Your task to perform on an android device: move a message to another label in the gmail app Image 0: 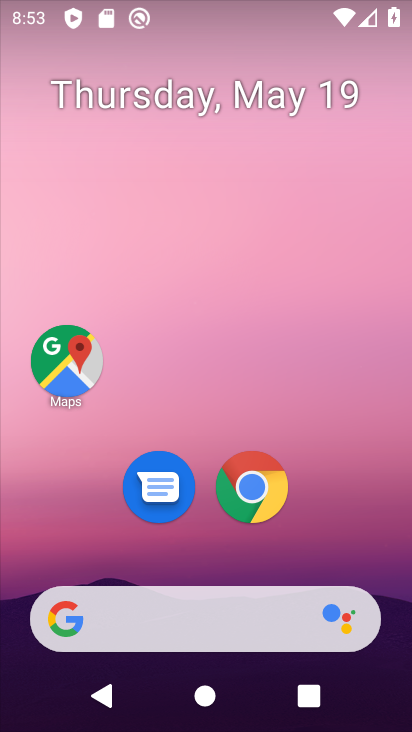
Step 0: drag from (216, 457) to (264, 40)
Your task to perform on an android device: move a message to another label in the gmail app Image 1: 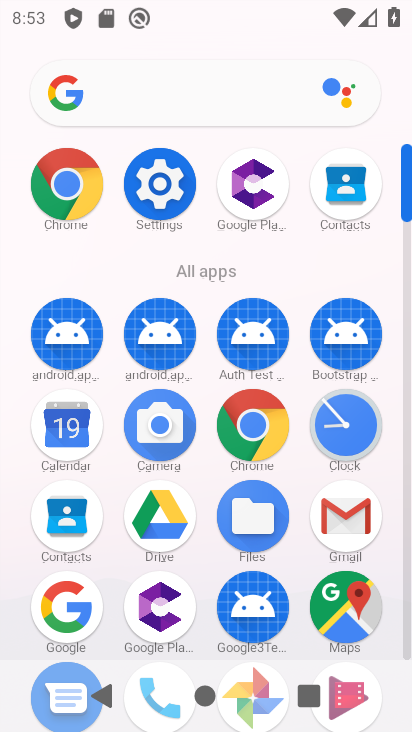
Step 1: click (339, 526)
Your task to perform on an android device: move a message to another label in the gmail app Image 2: 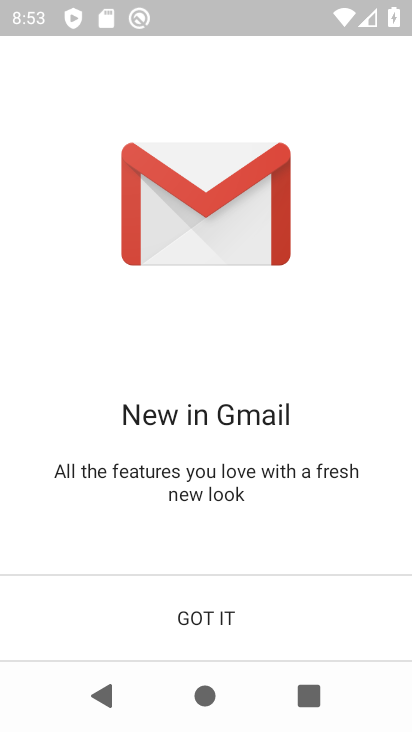
Step 2: click (184, 642)
Your task to perform on an android device: move a message to another label in the gmail app Image 3: 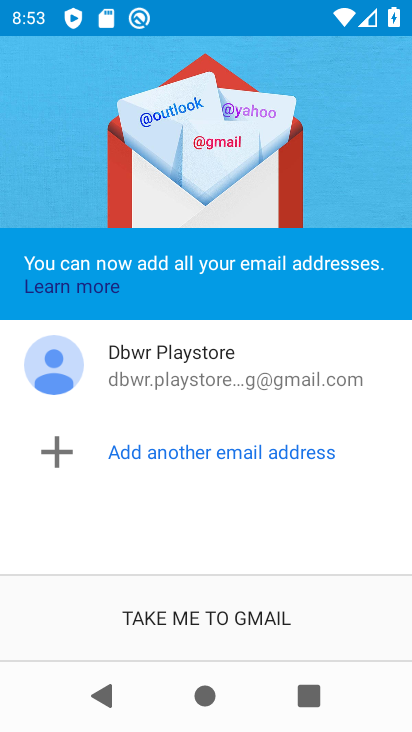
Step 3: click (184, 642)
Your task to perform on an android device: move a message to another label in the gmail app Image 4: 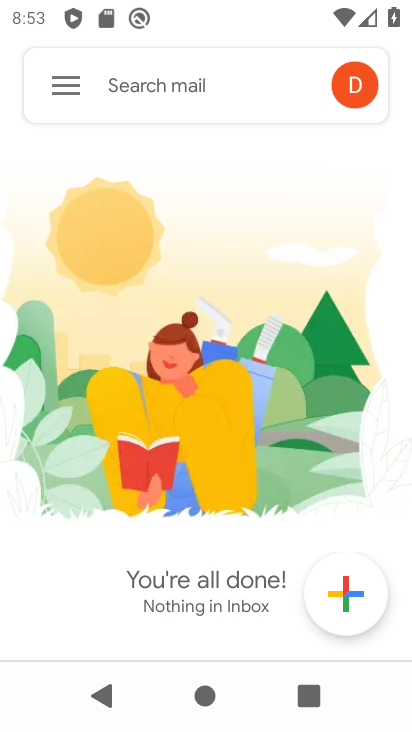
Step 4: click (59, 90)
Your task to perform on an android device: move a message to another label in the gmail app Image 5: 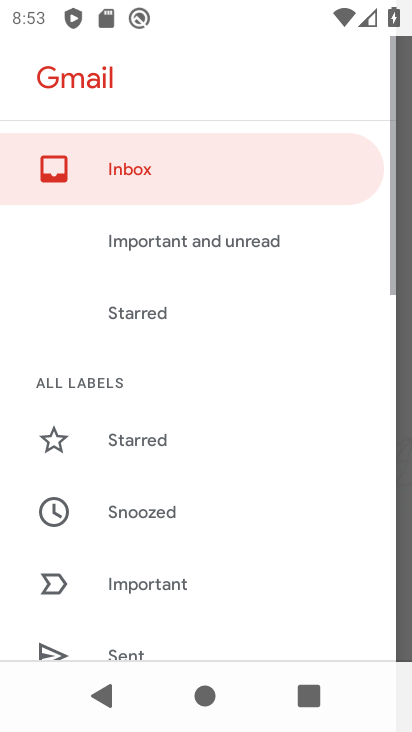
Step 5: drag from (148, 535) to (206, 219)
Your task to perform on an android device: move a message to another label in the gmail app Image 6: 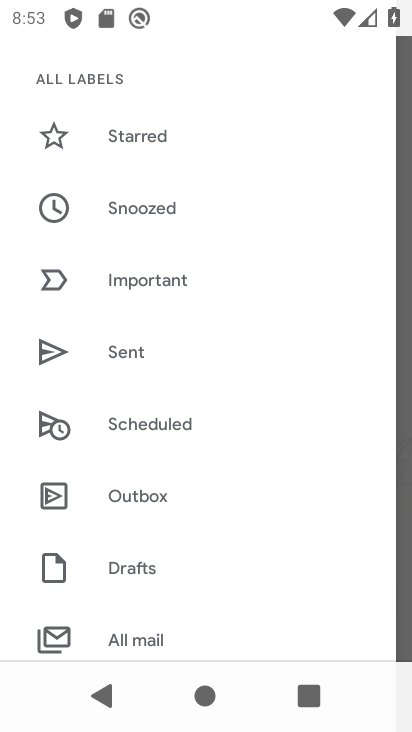
Step 6: click (167, 638)
Your task to perform on an android device: move a message to another label in the gmail app Image 7: 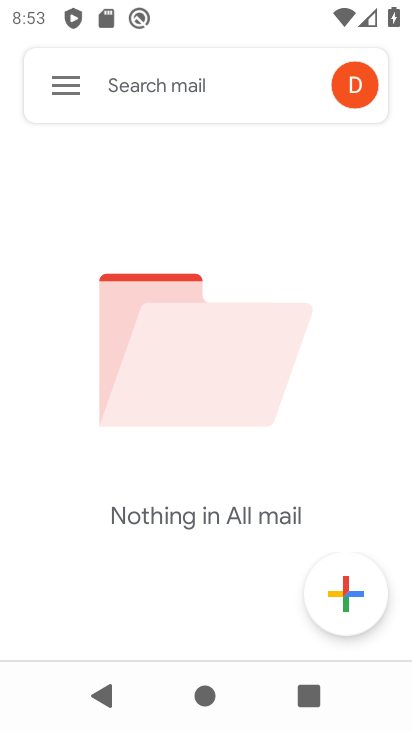
Step 7: task complete